Your task to perform on an android device: turn off improve location accuracy Image 0: 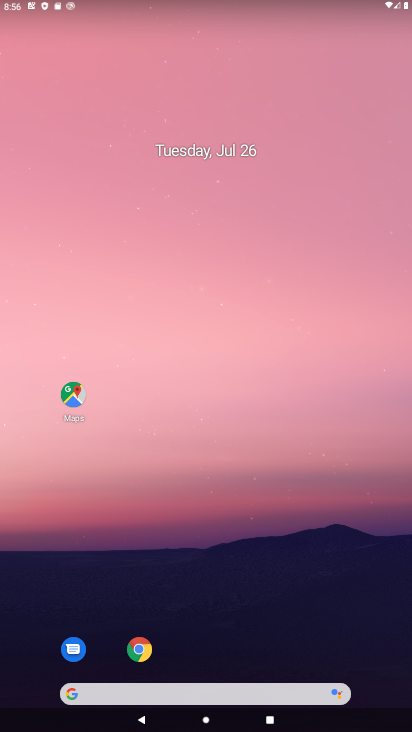
Step 0: drag from (188, 602) to (260, 197)
Your task to perform on an android device: turn off improve location accuracy Image 1: 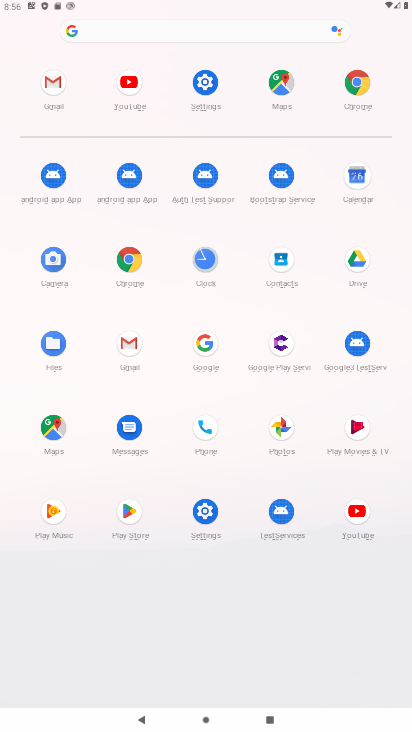
Step 1: click (201, 504)
Your task to perform on an android device: turn off improve location accuracy Image 2: 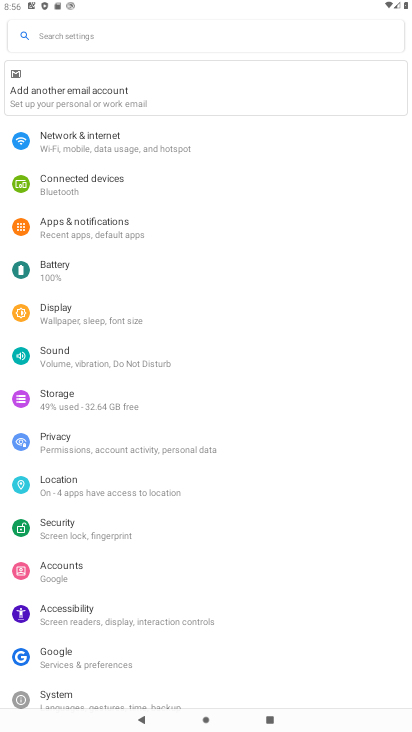
Step 2: drag from (162, 580) to (287, 202)
Your task to perform on an android device: turn off improve location accuracy Image 3: 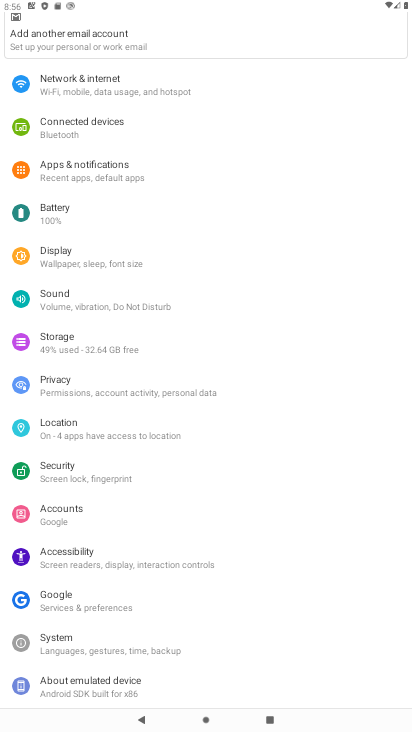
Step 3: click (68, 419)
Your task to perform on an android device: turn off improve location accuracy Image 4: 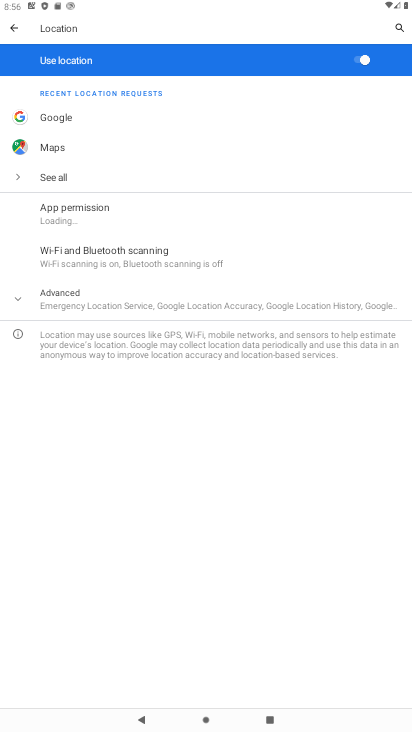
Step 4: click (150, 302)
Your task to perform on an android device: turn off improve location accuracy Image 5: 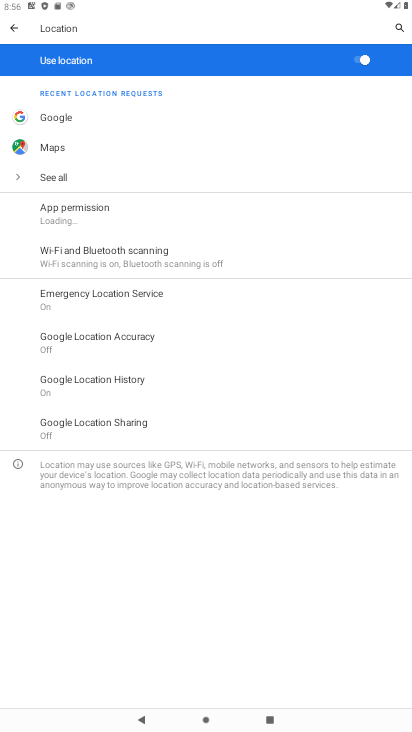
Step 5: click (156, 345)
Your task to perform on an android device: turn off improve location accuracy Image 6: 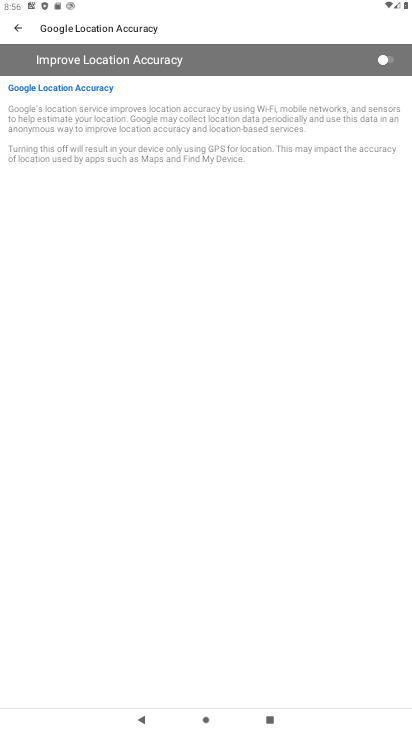
Step 6: task complete